Your task to perform on an android device: Show me productivity apps on the Play Store Image 0: 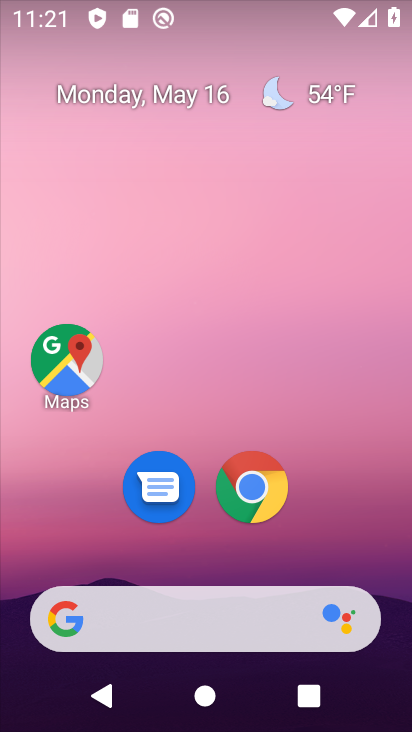
Step 0: drag from (183, 495) to (244, 35)
Your task to perform on an android device: Show me productivity apps on the Play Store Image 1: 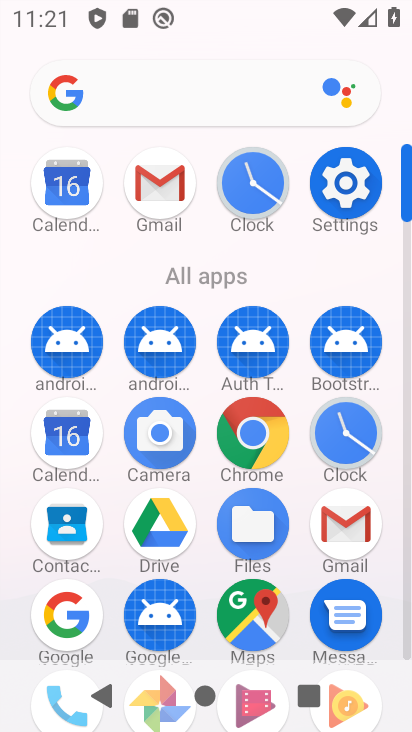
Step 1: drag from (161, 609) to (233, 106)
Your task to perform on an android device: Show me productivity apps on the Play Store Image 2: 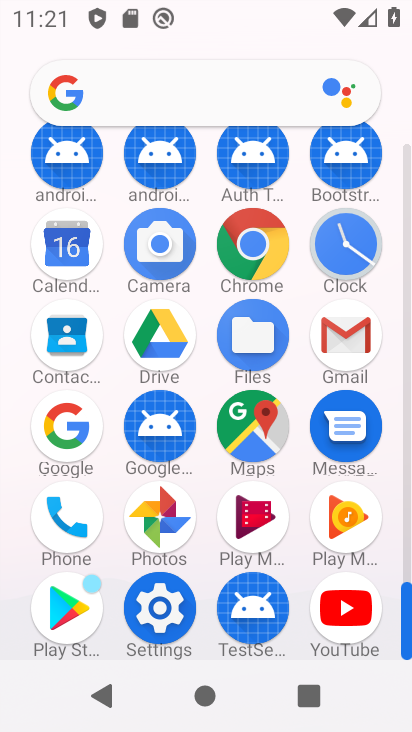
Step 2: click (66, 609)
Your task to perform on an android device: Show me productivity apps on the Play Store Image 3: 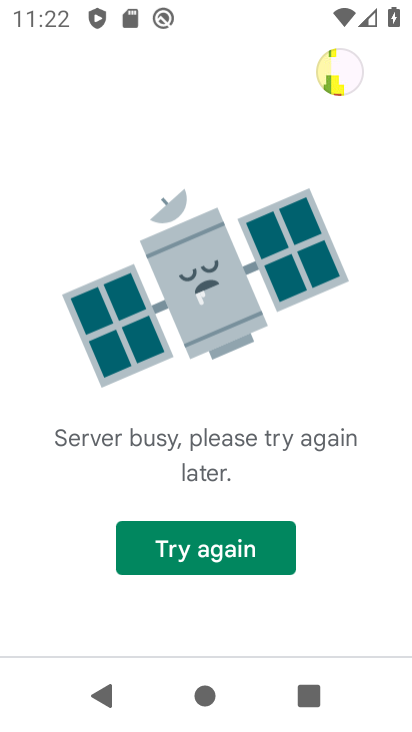
Step 3: click (183, 564)
Your task to perform on an android device: Show me productivity apps on the Play Store Image 4: 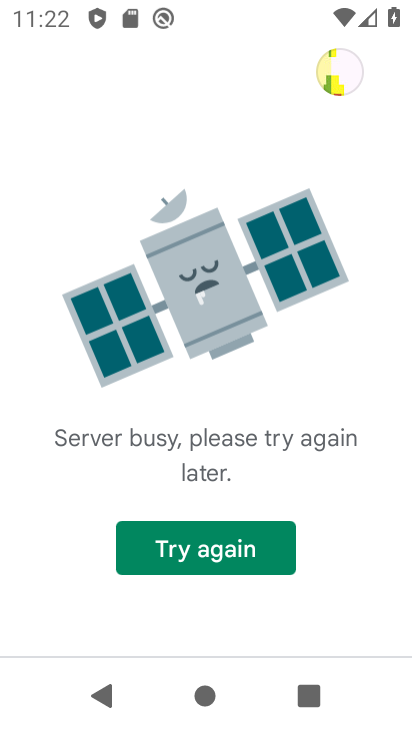
Step 4: click (222, 555)
Your task to perform on an android device: Show me productivity apps on the Play Store Image 5: 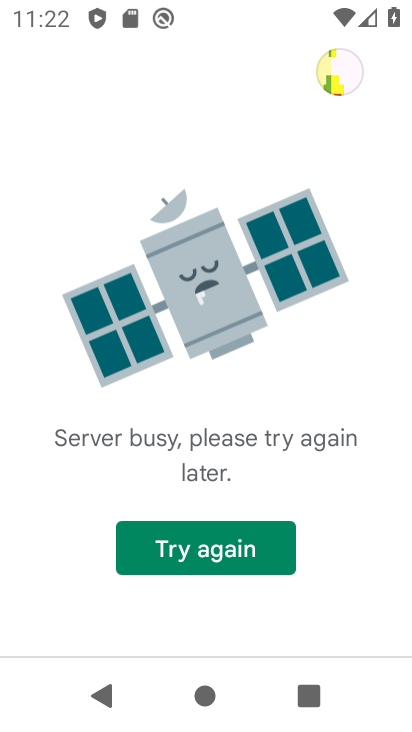
Step 5: task complete